Your task to perform on an android device: Go to Reddit.com Image 0: 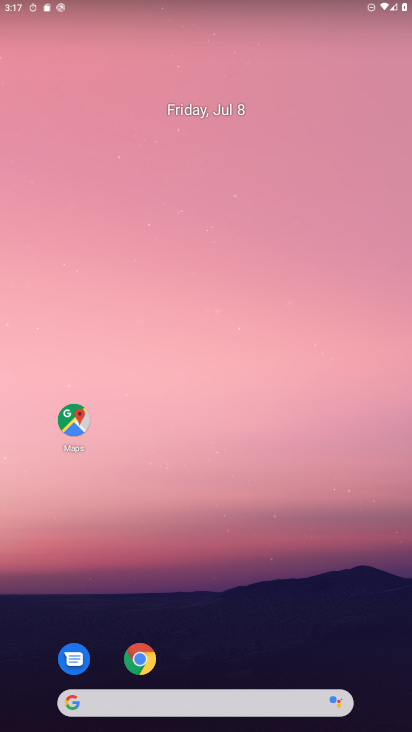
Step 0: click (137, 648)
Your task to perform on an android device: Go to Reddit.com Image 1: 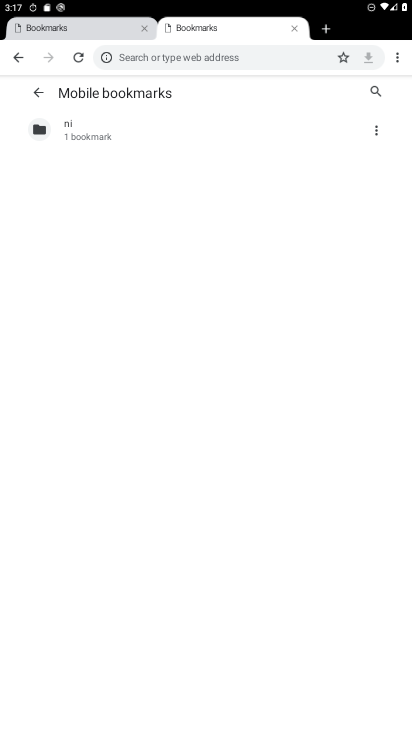
Step 1: click (255, 61)
Your task to perform on an android device: Go to Reddit.com Image 2: 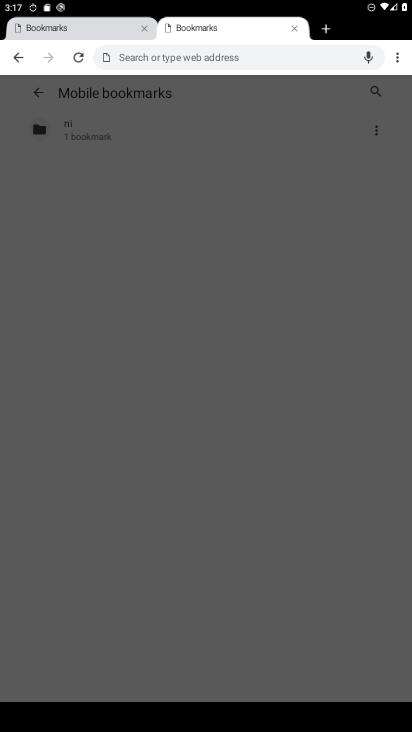
Step 2: type "Reddit.com"
Your task to perform on an android device: Go to Reddit.com Image 3: 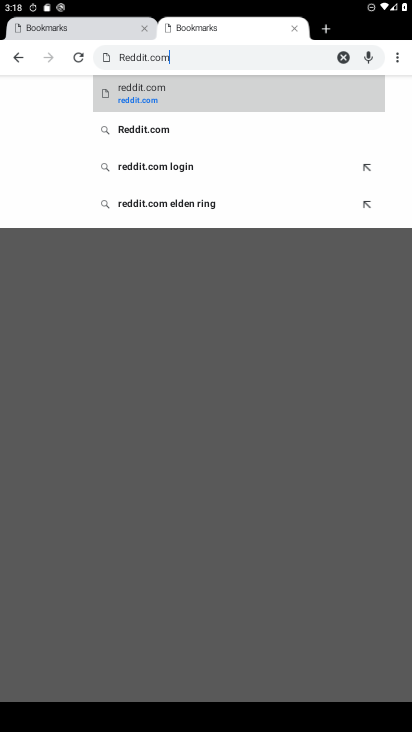
Step 3: click (144, 85)
Your task to perform on an android device: Go to Reddit.com Image 4: 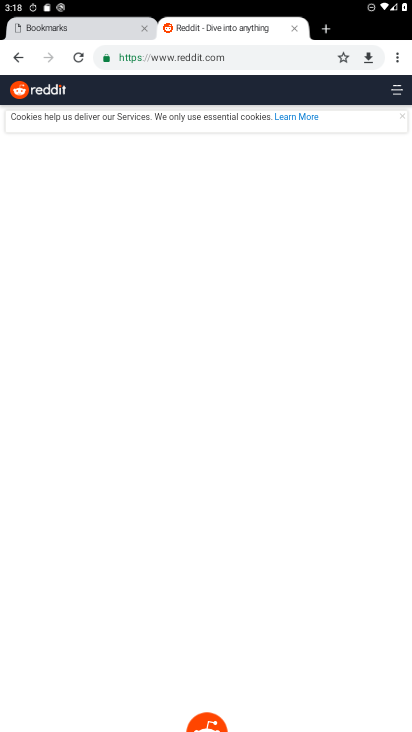
Step 4: task complete